Your task to perform on an android device: Search for seafood restaurants on Google Maps Image 0: 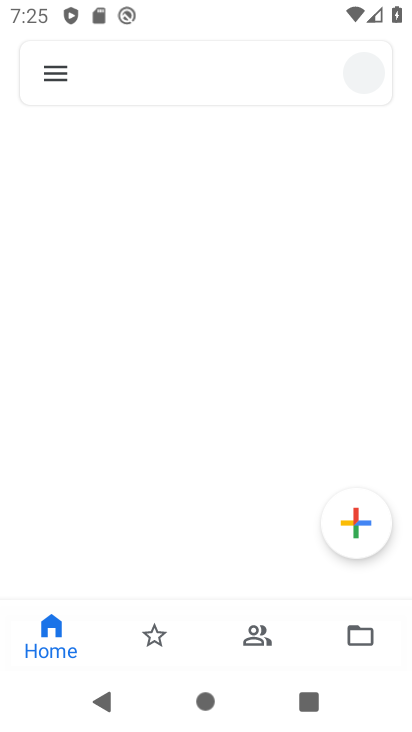
Step 0: press home button
Your task to perform on an android device: Search for seafood restaurants on Google Maps Image 1: 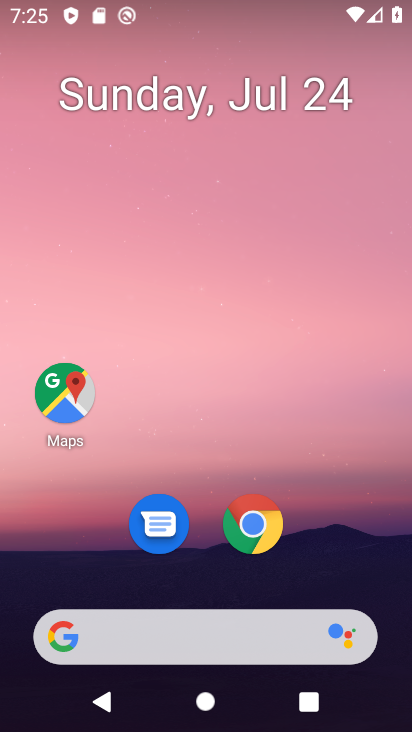
Step 1: click (65, 389)
Your task to perform on an android device: Search for seafood restaurants on Google Maps Image 2: 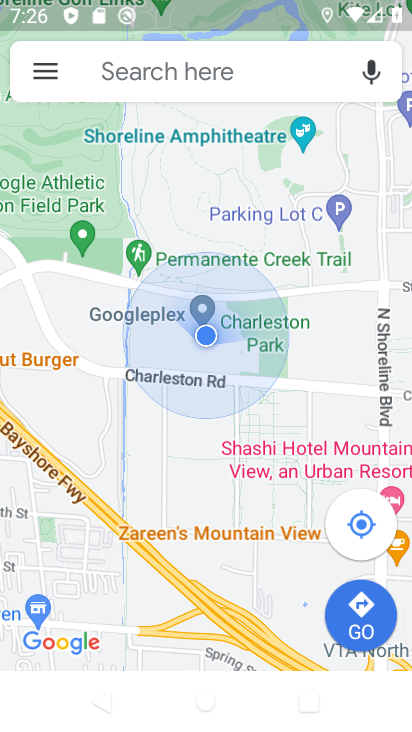
Step 2: click (149, 76)
Your task to perform on an android device: Search for seafood restaurants on Google Maps Image 3: 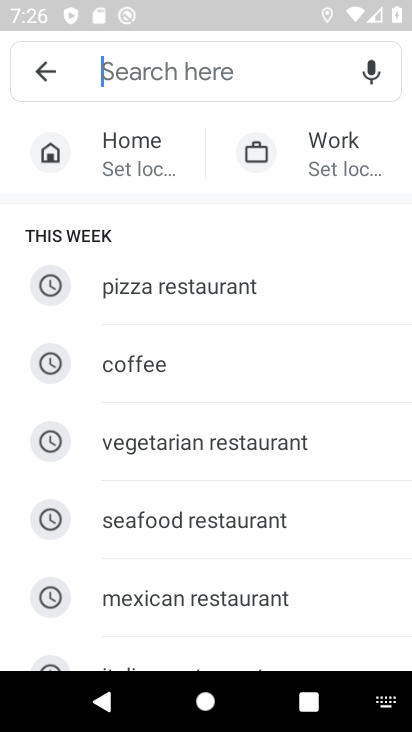
Step 3: click (191, 523)
Your task to perform on an android device: Search for seafood restaurants on Google Maps Image 4: 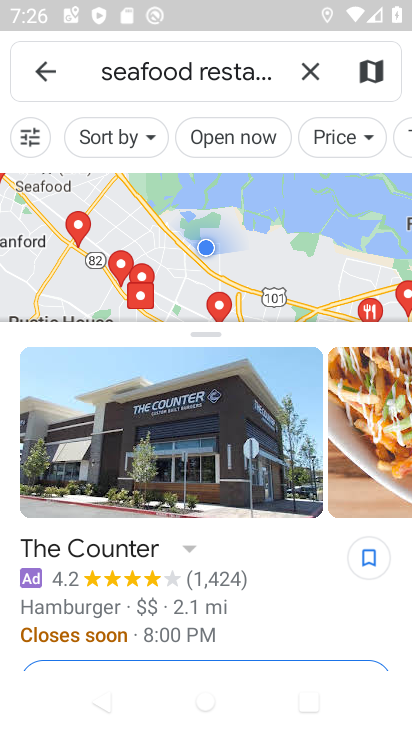
Step 4: task complete